Your task to perform on an android device: install app "Etsy: Buy & Sell Unique Items" Image 0: 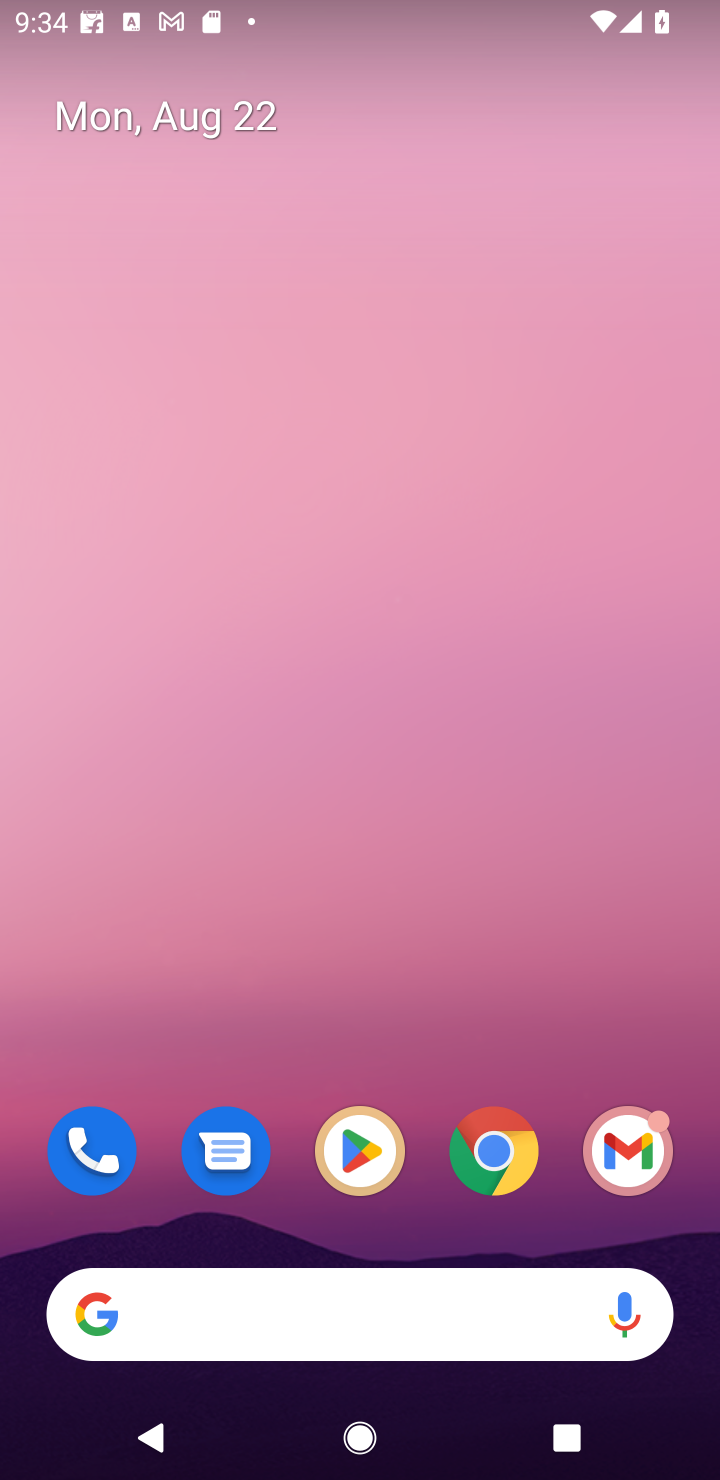
Step 0: press home button
Your task to perform on an android device: install app "Etsy: Buy & Sell Unique Items" Image 1: 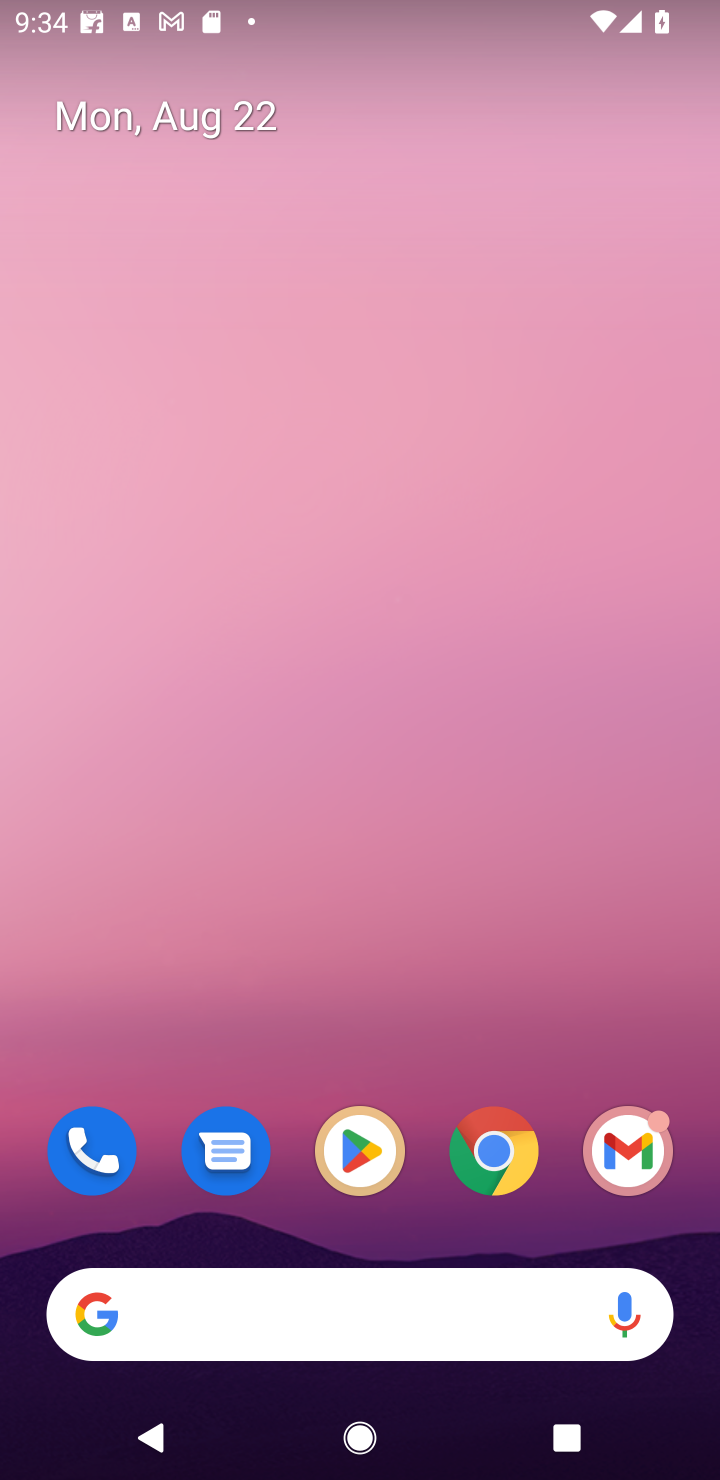
Step 1: click (363, 1141)
Your task to perform on an android device: install app "Etsy: Buy & Sell Unique Items" Image 2: 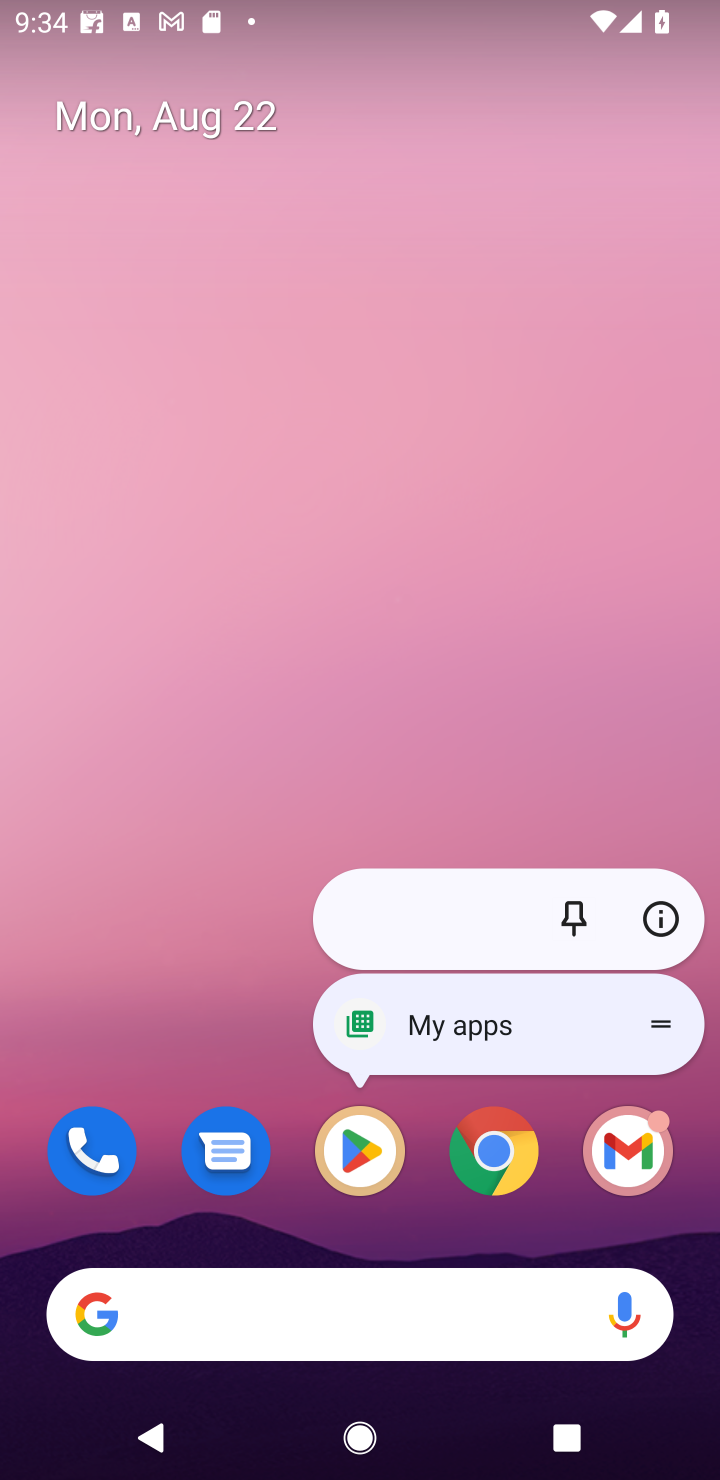
Step 2: click (363, 1141)
Your task to perform on an android device: install app "Etsy: Buy & Sell Unique Items" Image 3: 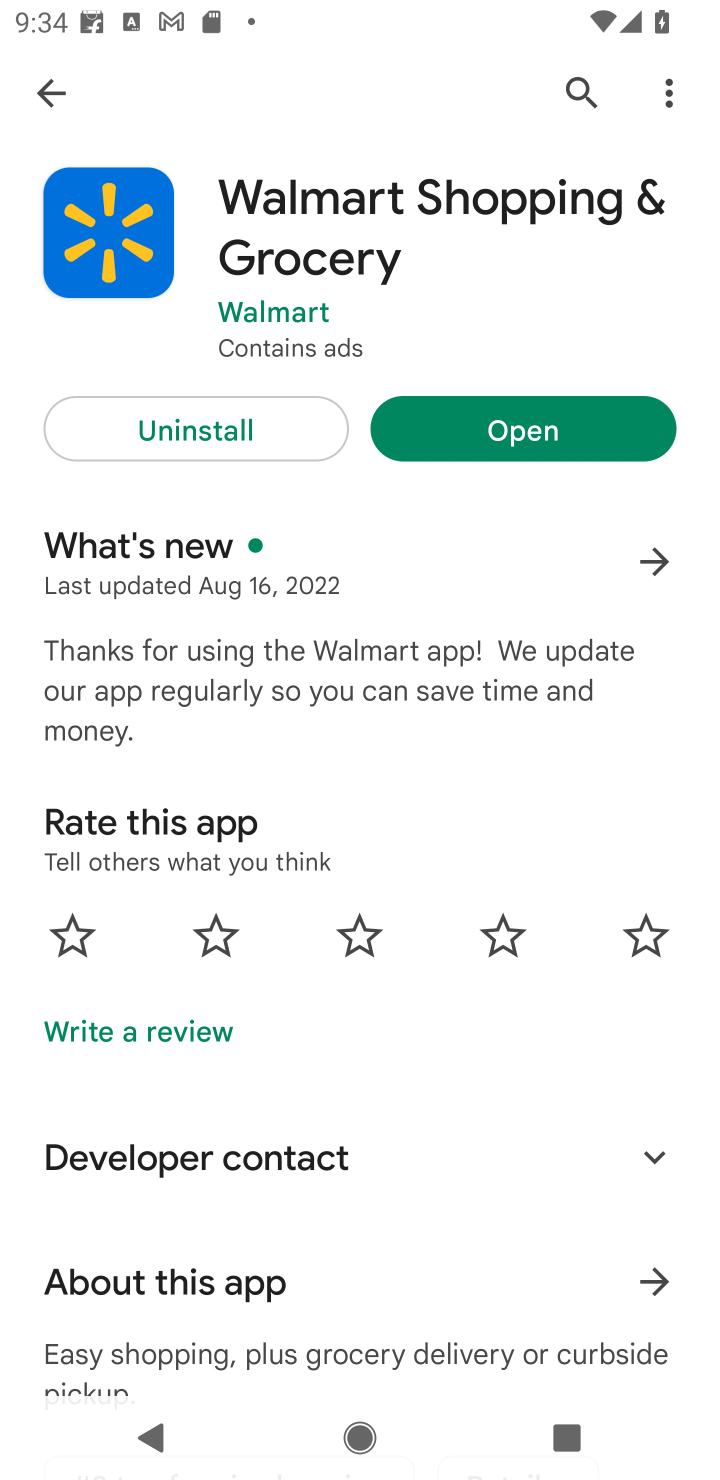
Step 3: click (573, 77)
Your task to perform on an android device: install app "Etsy: Buy & Sell Unique Items" Image 4: 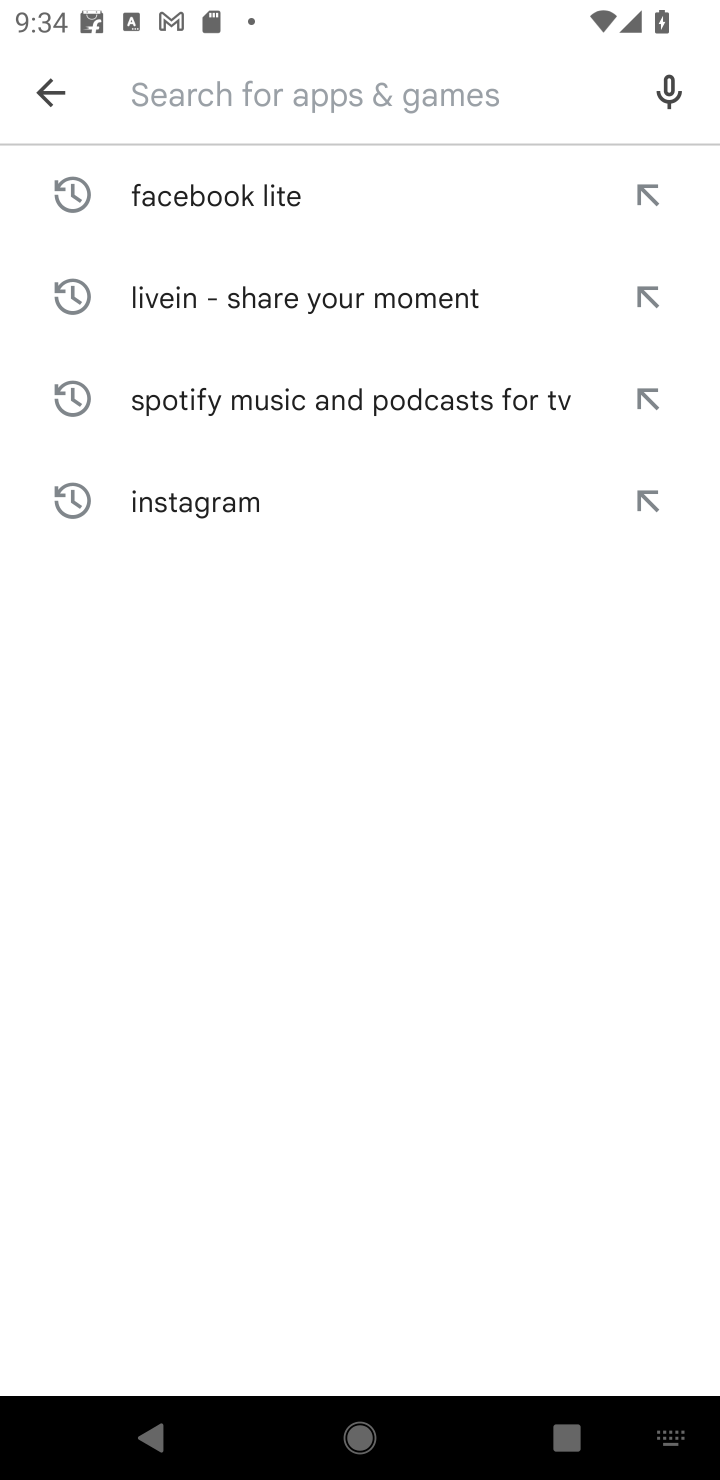
Step 4: type "Etsy: Buy & Sell Unique Items"
Your task to perform on an android device: install app "Etsy: Buy & Sell Unique Items" Image 5: 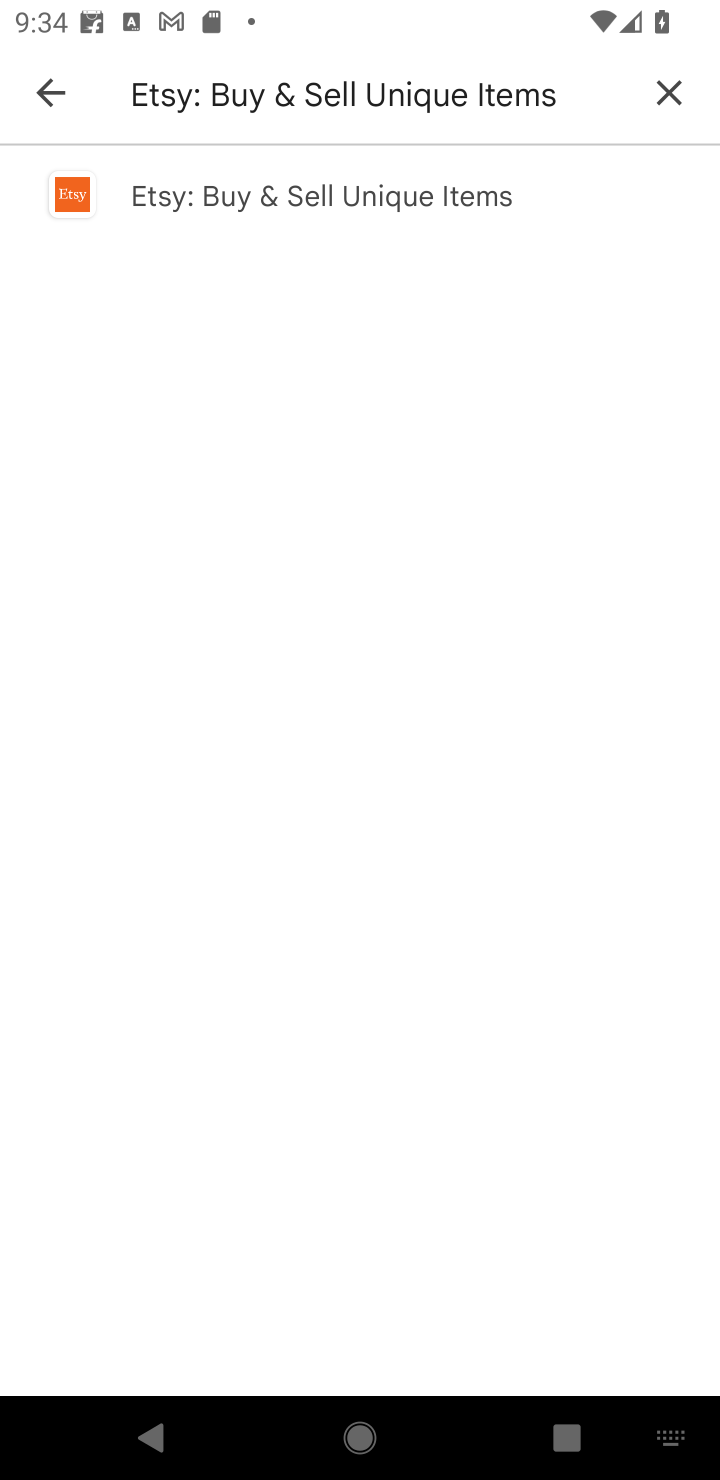
Step 5: click (294, 197)
Your task to perform on an android device: install app "Etsy: Buy & Sell Unique Items" Image 6: 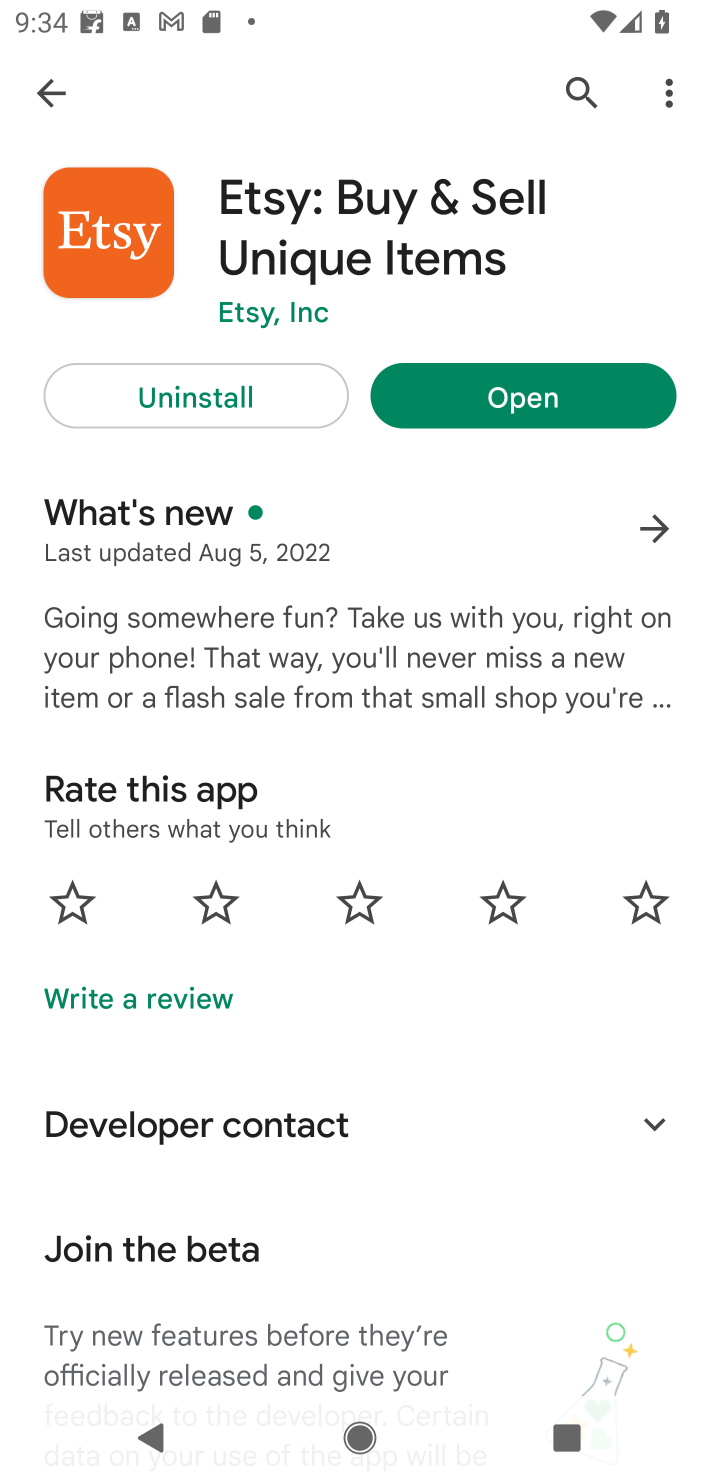
Step 6: task complete